Your task to perform on an android device: Go to notification settings Image 0: 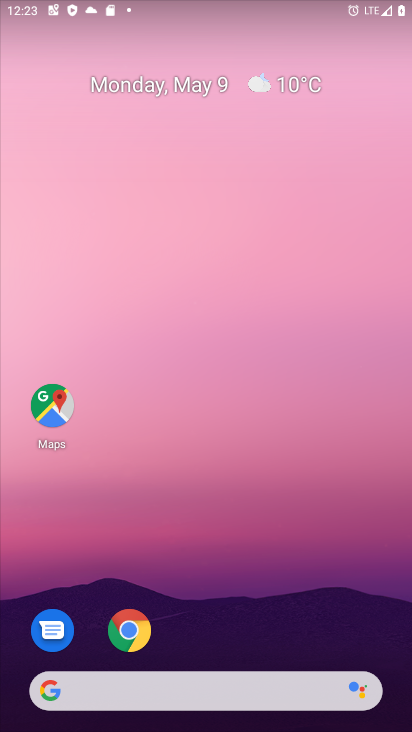
Step 0: drag from (366, 624) to (248, 9)
Your task to perform on an android device: Go to notification settings Image 1: 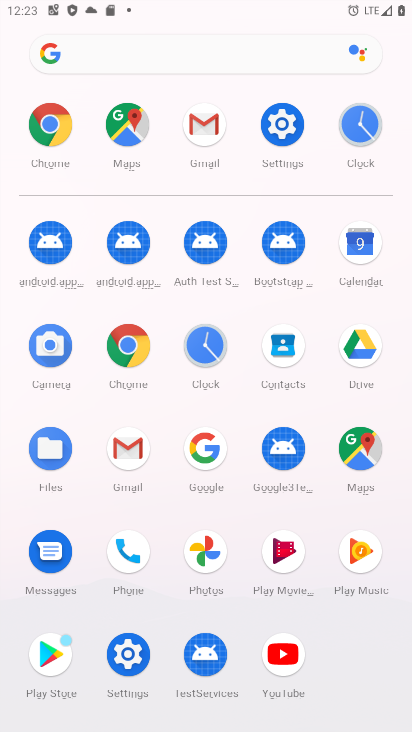
Step 1: click (123, 656)
Your task to perform on an android device: Go to notification settings Image 2: 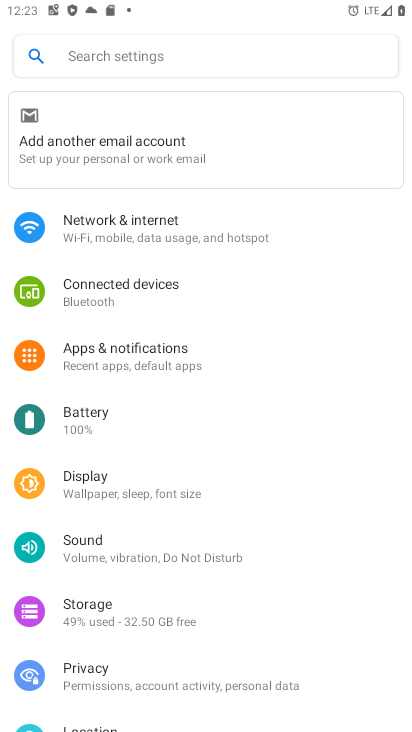
Step 2: click (151, 353)
Your task to perform on an android device: Go to notification settings Image 3: 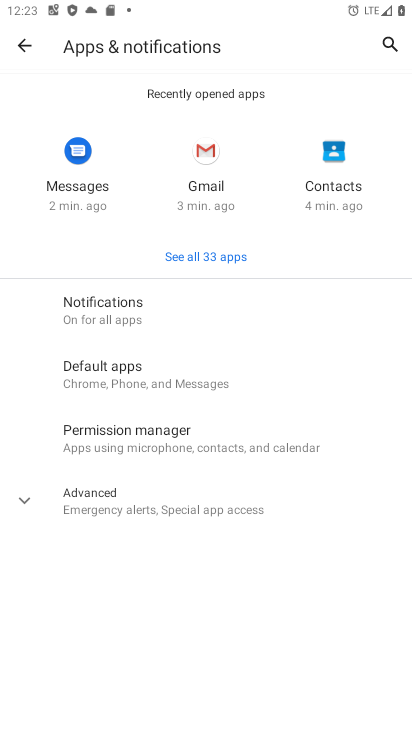
Step 3: click (189, 306)
Your task to perform on an android device: Go to notification settings Image 4: 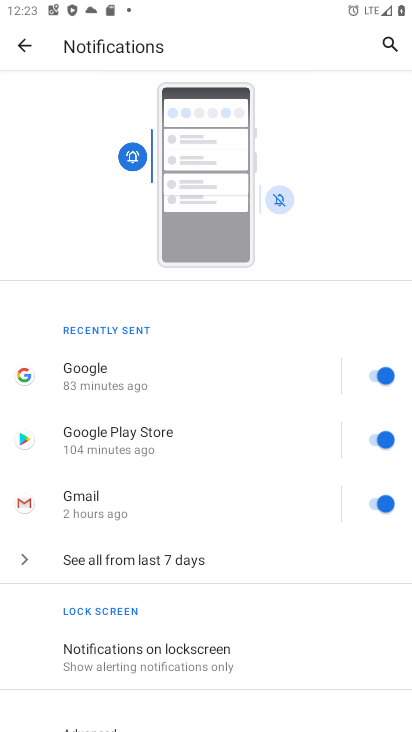
Step 4: task complete